Your task to perform on an android device: What's on my calendar today? Image 0: 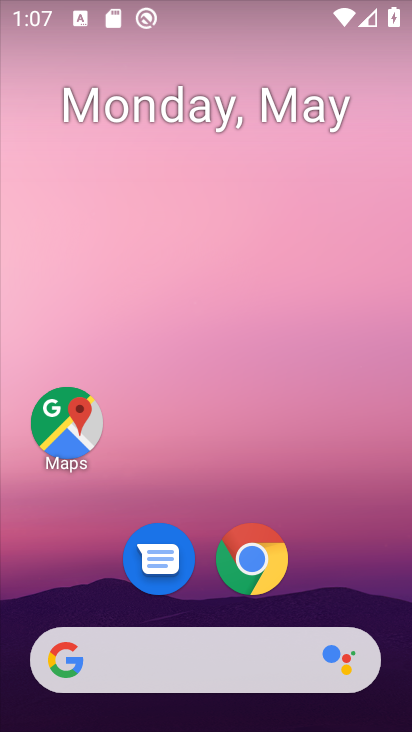
Step 0: drag from (360, 540) to (405, 204)
Your task to perform on an android device: What's on my calendar today? Image 1: 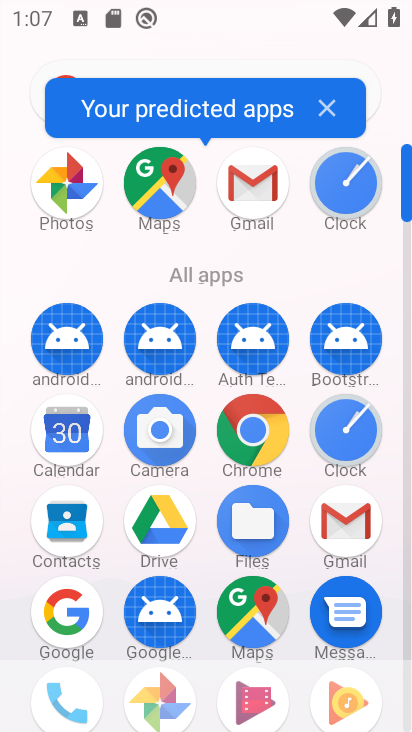
Step 1: click (49, 441)
Your task to perform on an android device: What's on my calendar today? Image 2: 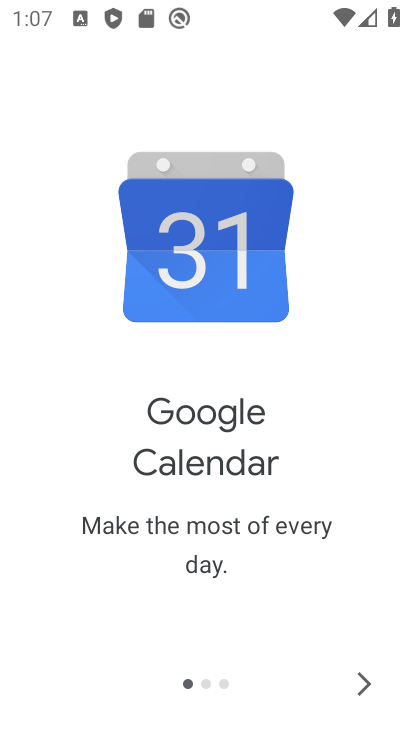
Step 2: click (364, 674)
Your task to perform on an android device: What's on my calendar today? Image 3: 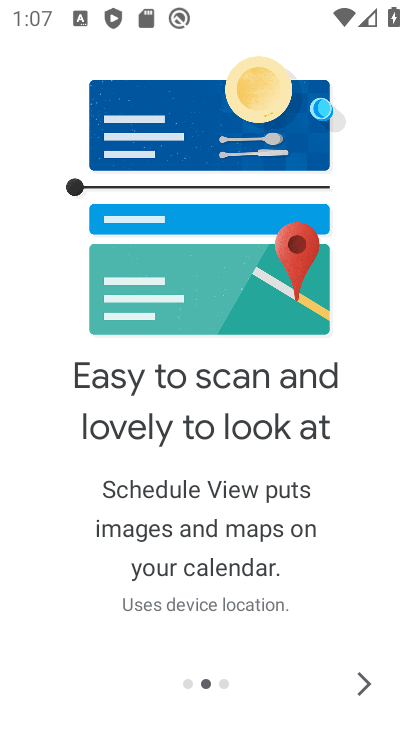
Step 3: click (369, 661)
Your task to perform on an android device: What's on my calendar today? Image 4: 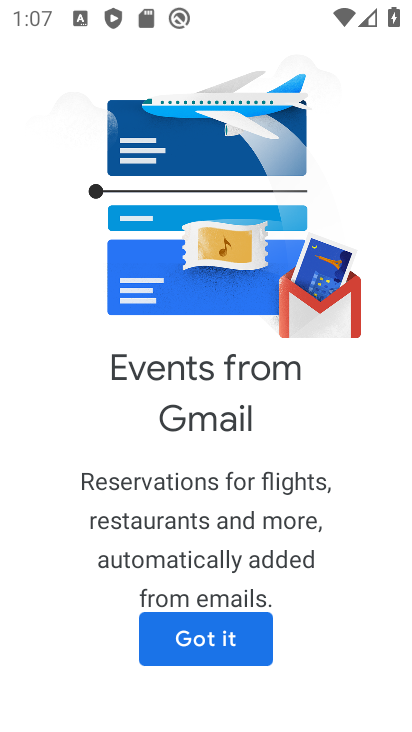
Step 4: click (219, 656)
Your task to perform on an android device: What's on my calendar today? Image 5: 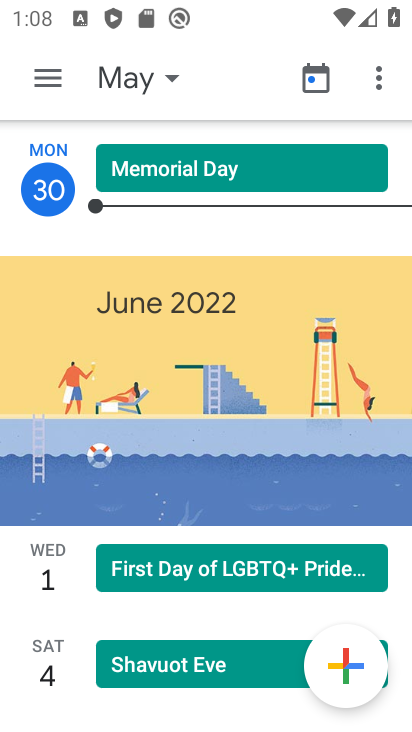
Step 5: click (129, 88)
Your task to perform on an android device: What's on my calendar today? Image 6: 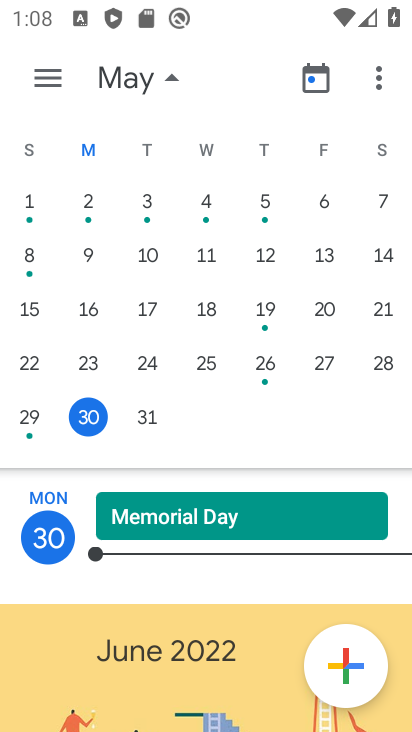
Step 6: task complete